Your task to perform on an android device: Search for Mexican restaurants on Maps Image 0: 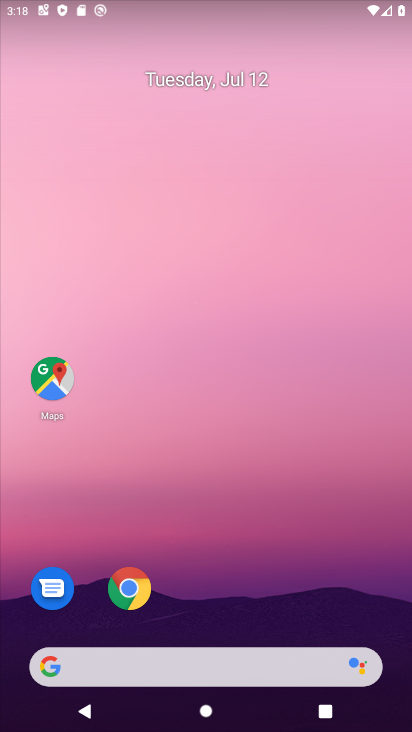
Step 0: drag from (286, 621) to (300, 271)
Your task to perform on an android device: Search for Mexican restaurants on Maps Image 1: 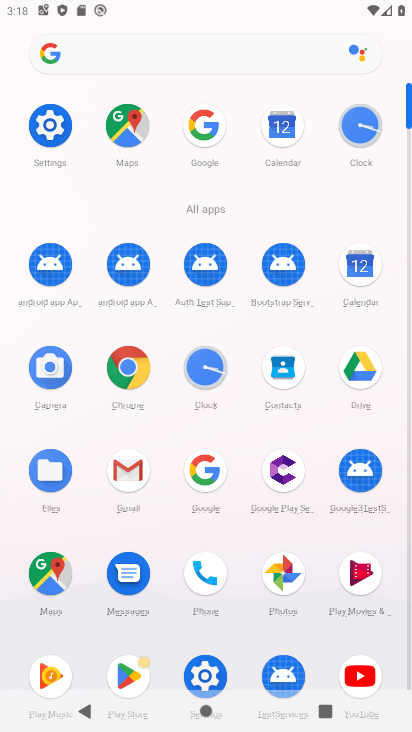
Step 1: click (62, 568)
Your task to perform on an android device: Search for Mexican restaurants on Maps Image 2: 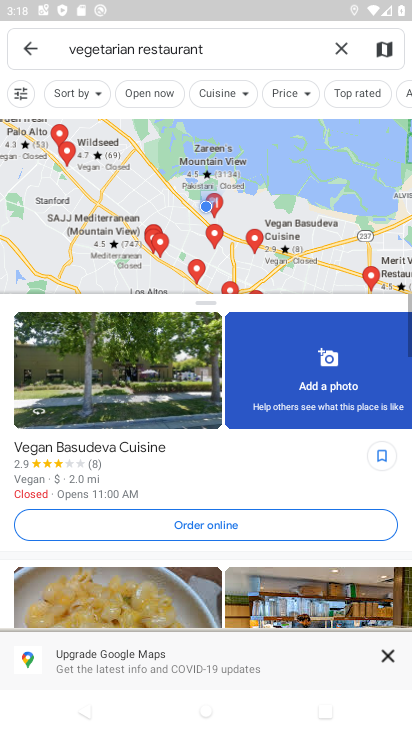
Step 2: click (252, 50)
Your task to perform on an android device: Search for Mexican restaurants on Maps Image 3: 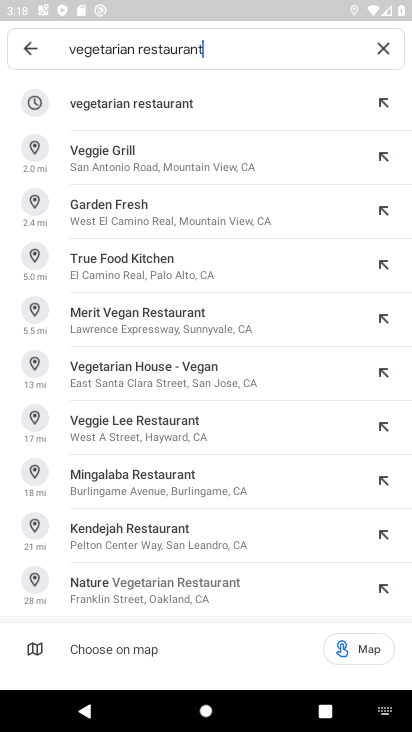
Step 3: click (369, 40)
Your task to perform on an android device: Search for Mexican restaurants on Maps Image 4: 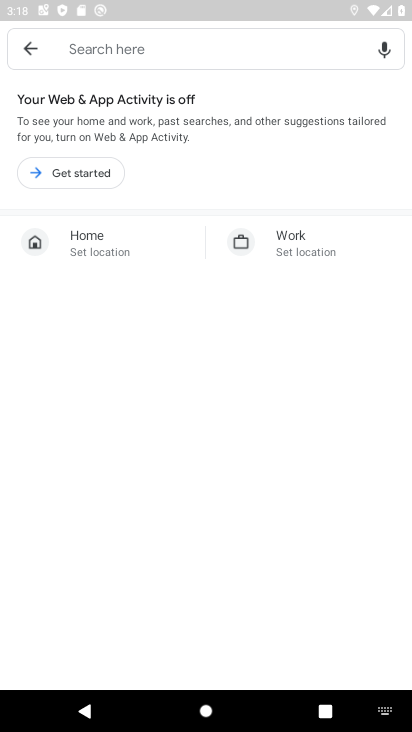
Step 4: type "mexican restaurants"
Your task to perform on an android device: Search for Mexican restaurants on Maps Image 5: 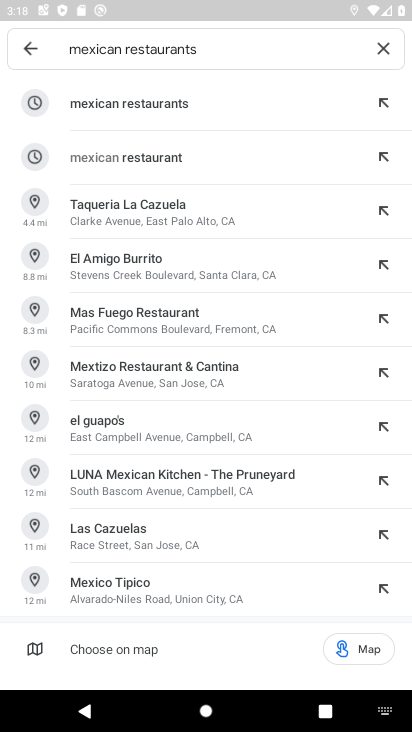
Step 5: click (89, 110)
Your task to perform on an android device: Search for Mexican restaurants on Maps Image 6: 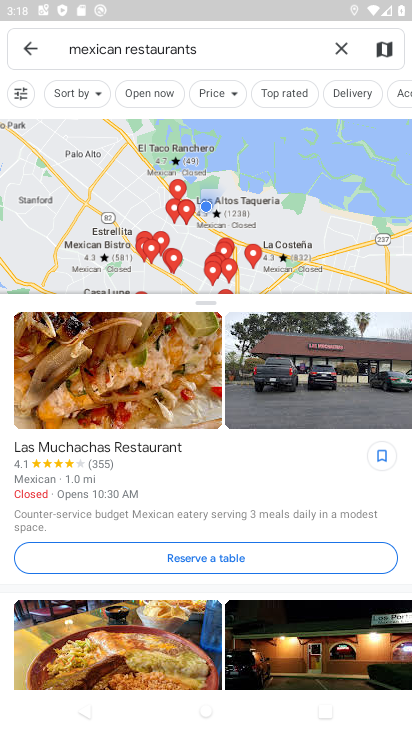
Step 6: task complete